Your task to perform on an android device: Go to location settings Image 0: 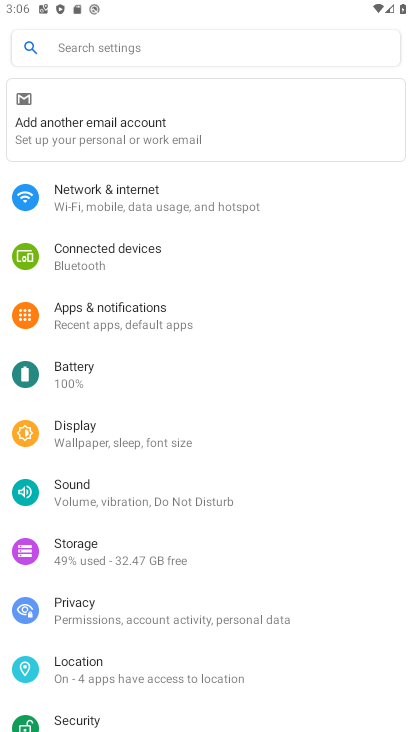
Step 0: click (127, 658)
Your task to perform on an android device: Go to location settings Image 1: 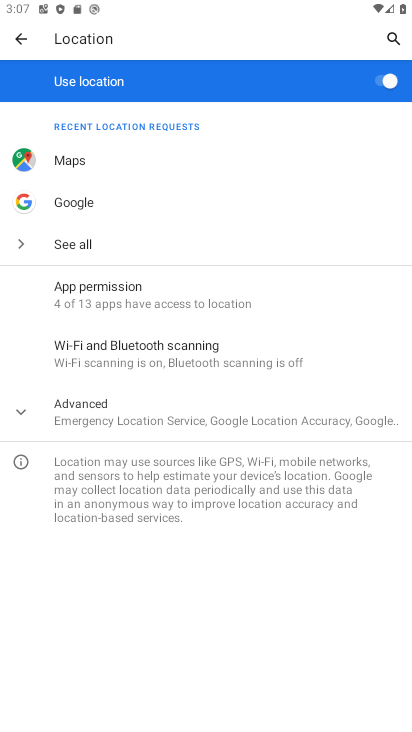
Step 1: task complete